Your task to perform on an android device: find photos in the google photos app Image 0: 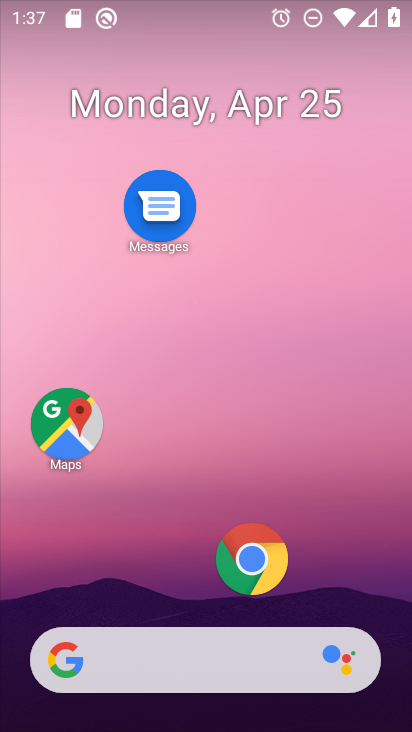
Step 0: drag from (176, 573) to (287, 145)
Your task to perform on an android device: find photos in the google photos app Image 1: 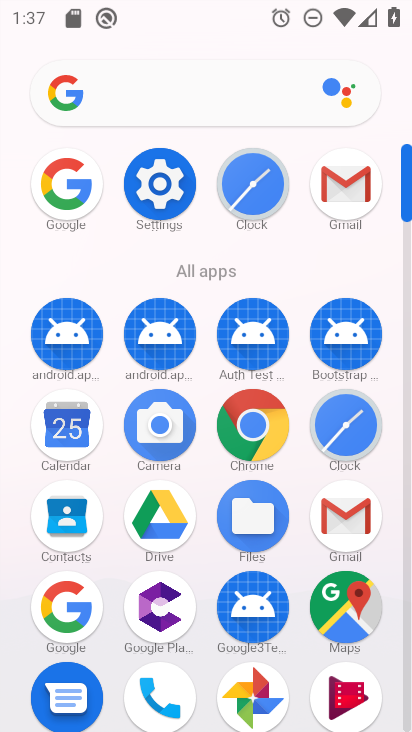
Step 1: click (255, 691)
Your task to perform on an android device: find photos in the google photos app Image 2: 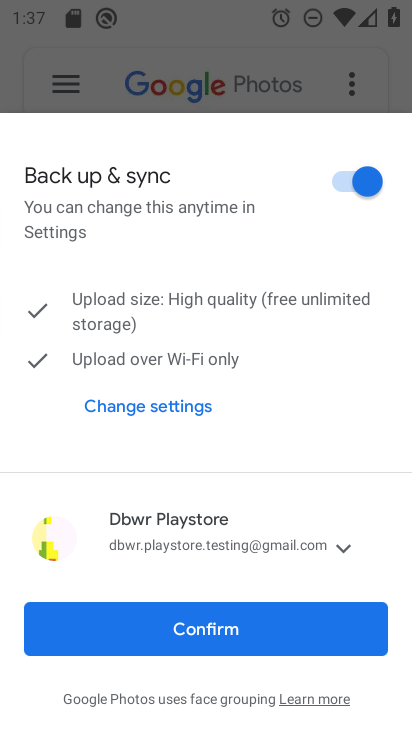
Step 2: click (197, 634)
Your task to perform on an android device: find photos in the google photos app Image 3: 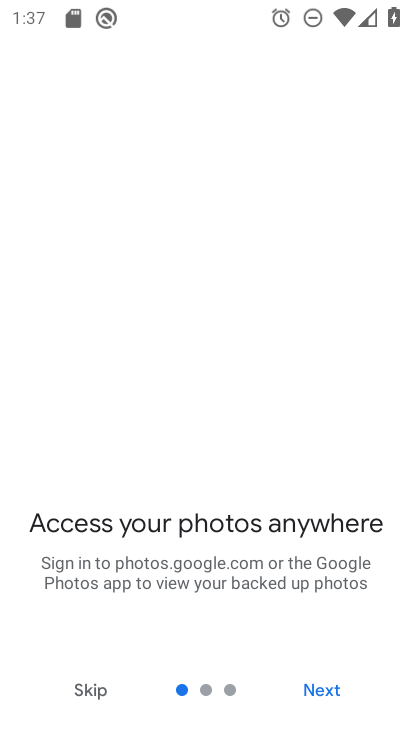
Step 3: click (319, 684)
Your task to perform on an android device: find photos in the google photos app Image 4: 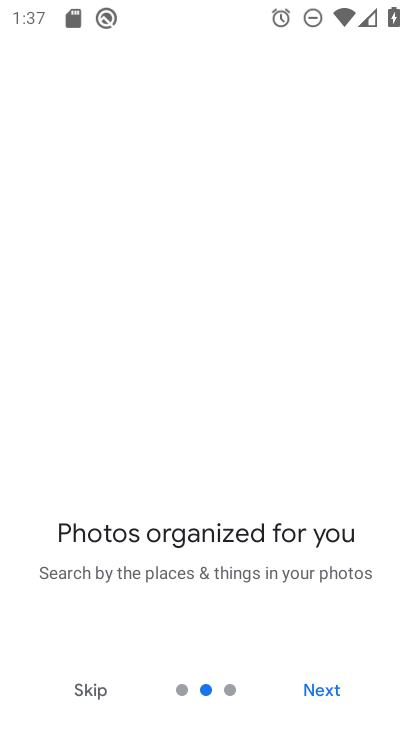
Step 4: click (319, 684)
Your task to perform on an android device: find photos in the google photos app Image 5: 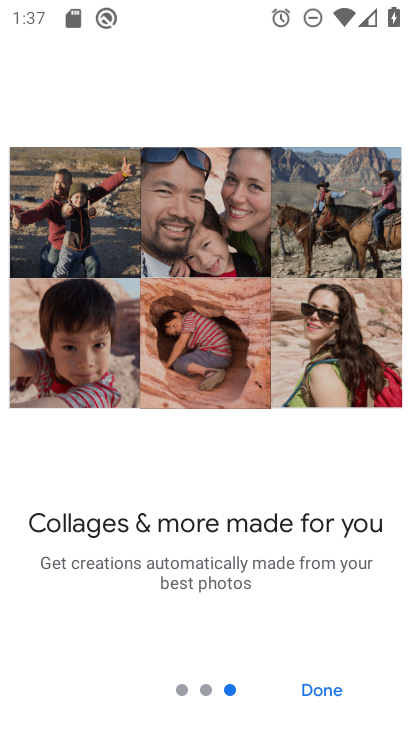
Step 5: click (319, 684)
Your task to perform on an android device: find photos in the google photos app Image 6: 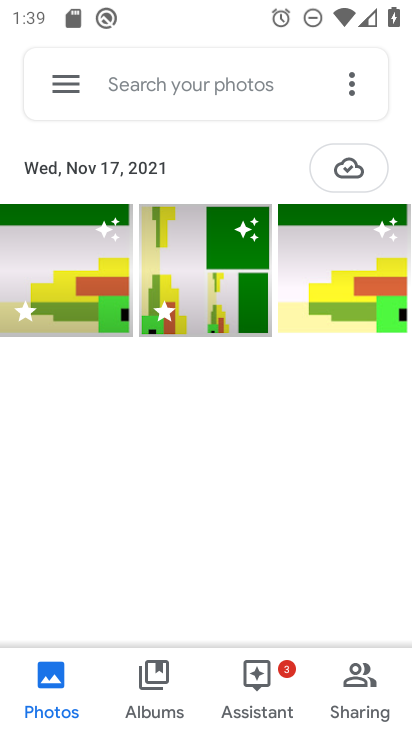
Step 6: task complete